Your task to perform on an android device: Check the weather Image 0: 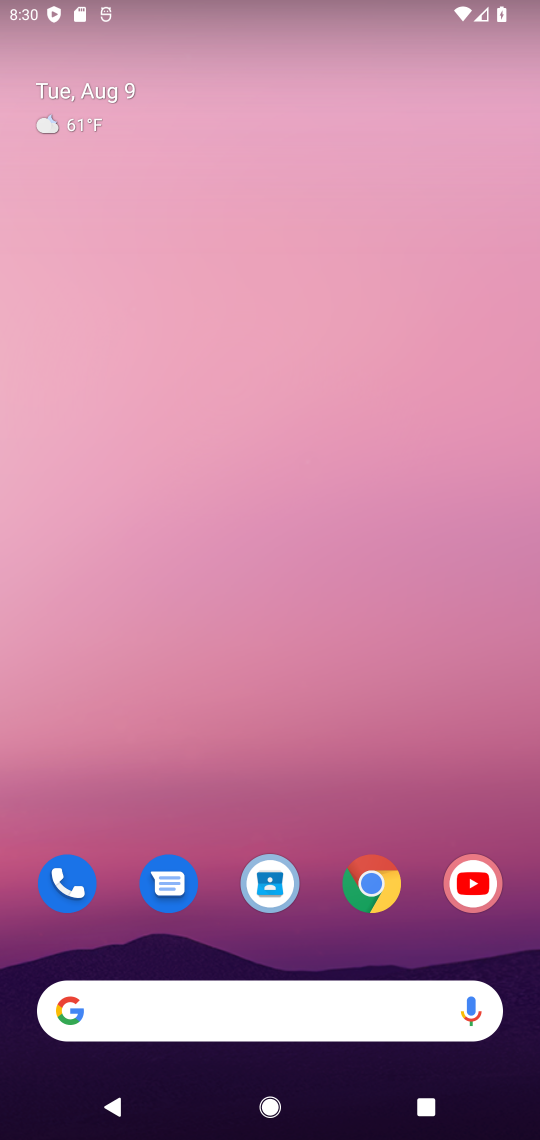
Step 0: drag from (313, 936) to (361, 156)
Your task to perform on an android device: Check the weather Image 1: 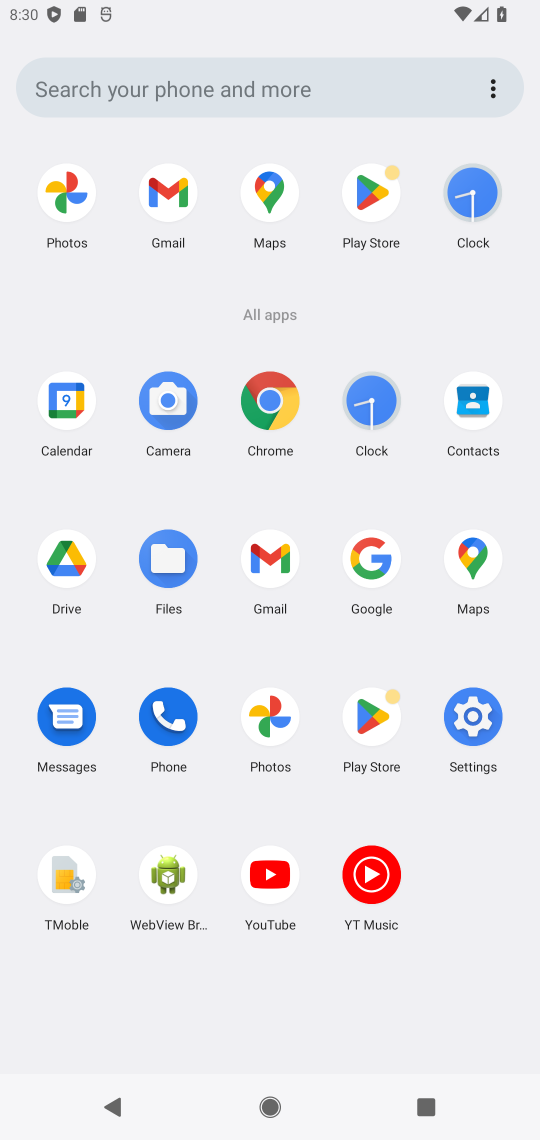
Step 1: click (274, 391)
Your task to perform on an android device: Check the weather Image 2: 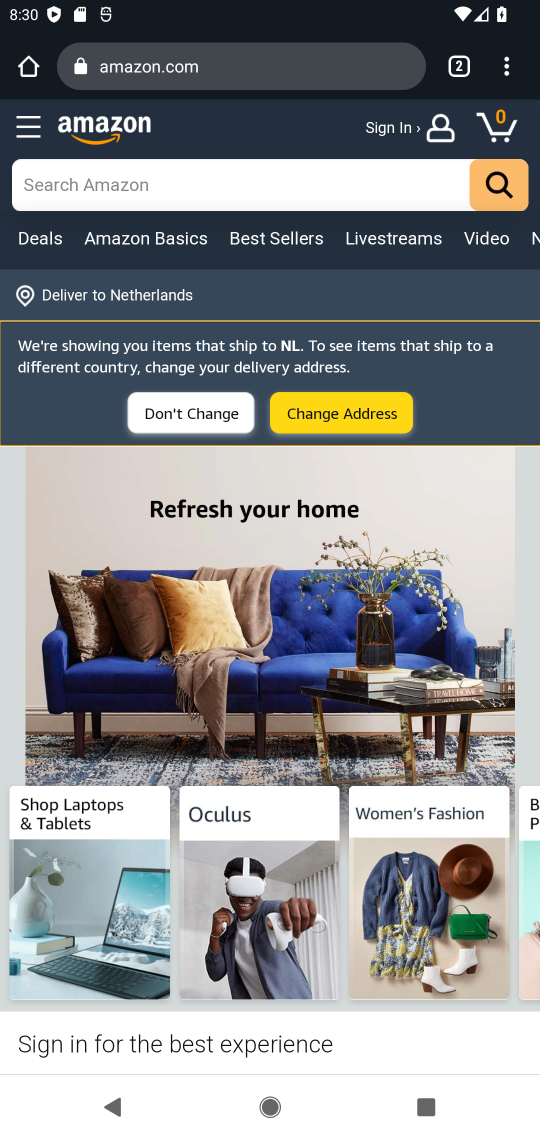
Step 2: click (259, 64)
Your task to perform on an android device: Check the weather Image 3: 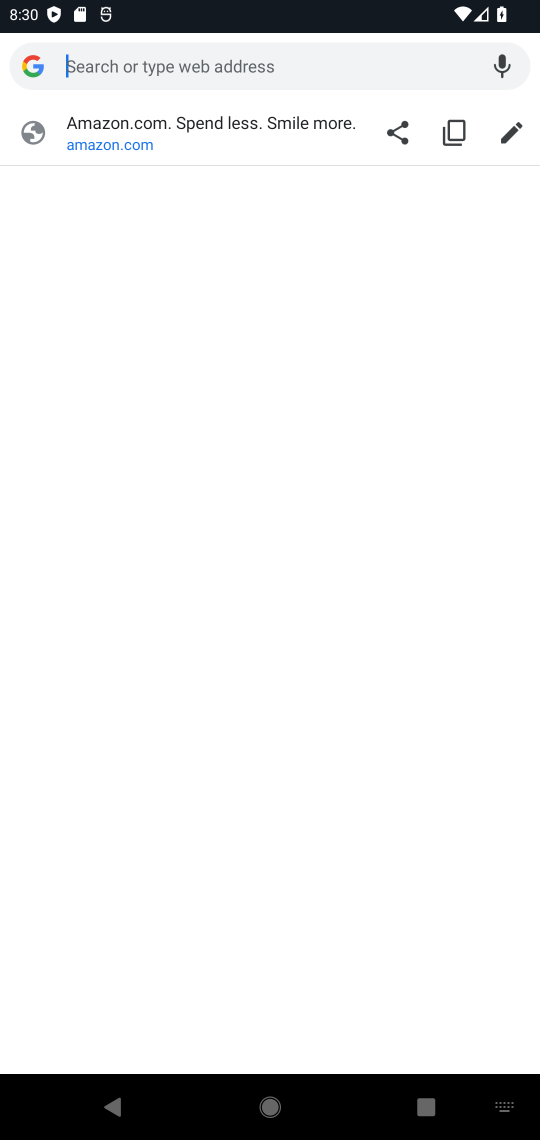
Step 3: type "weather"
Your task to perform on an android device: Check the weather Image 4: 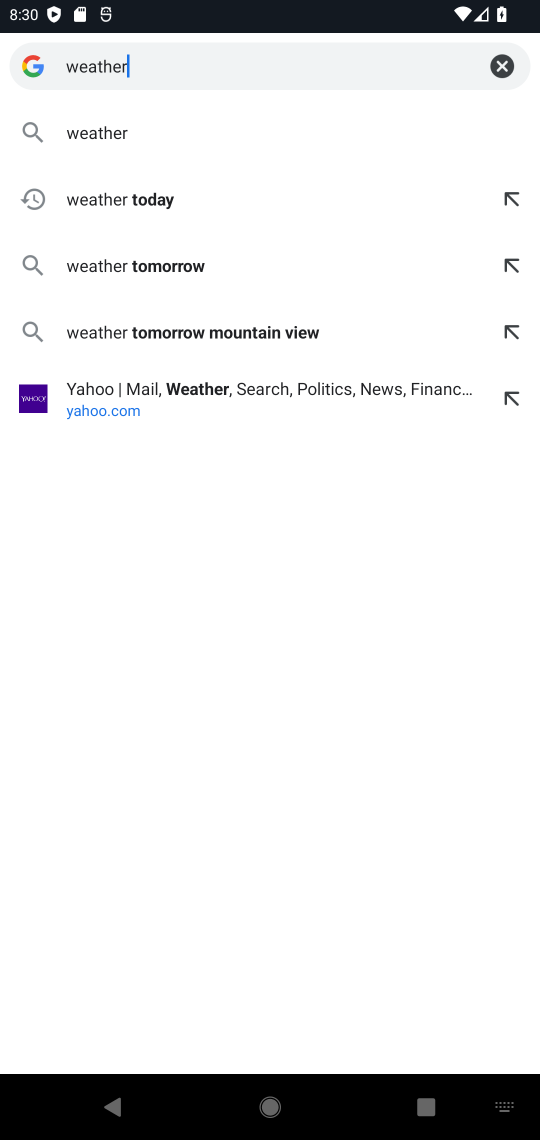
Step 4: click (128, 130)
Your task to perform on an android device: Check the weather Image 5: 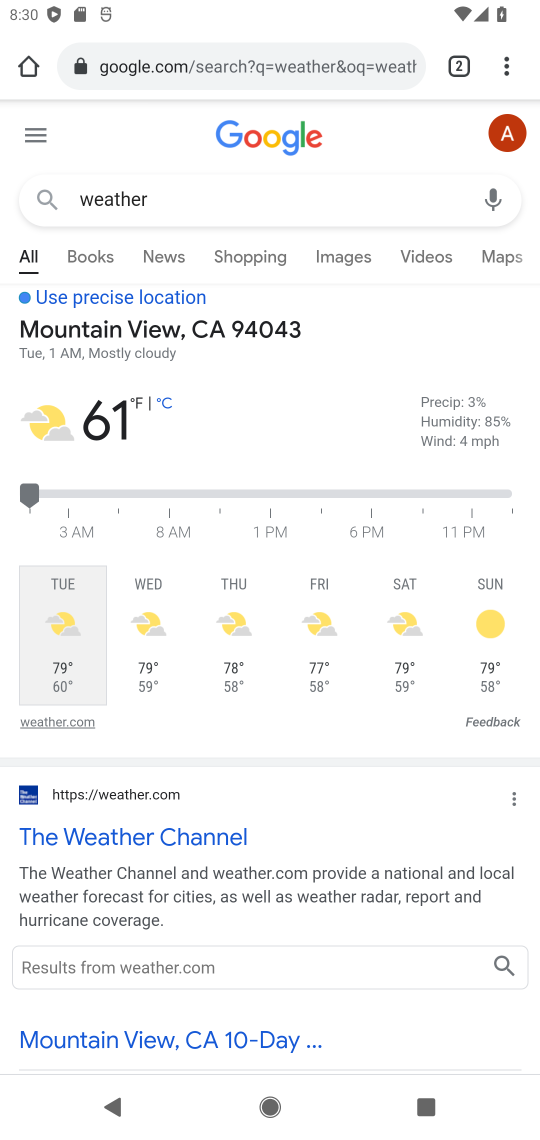
Step 5: task complete